Your task to perform on an android device: open a bookmark in the chrome app Image 0: 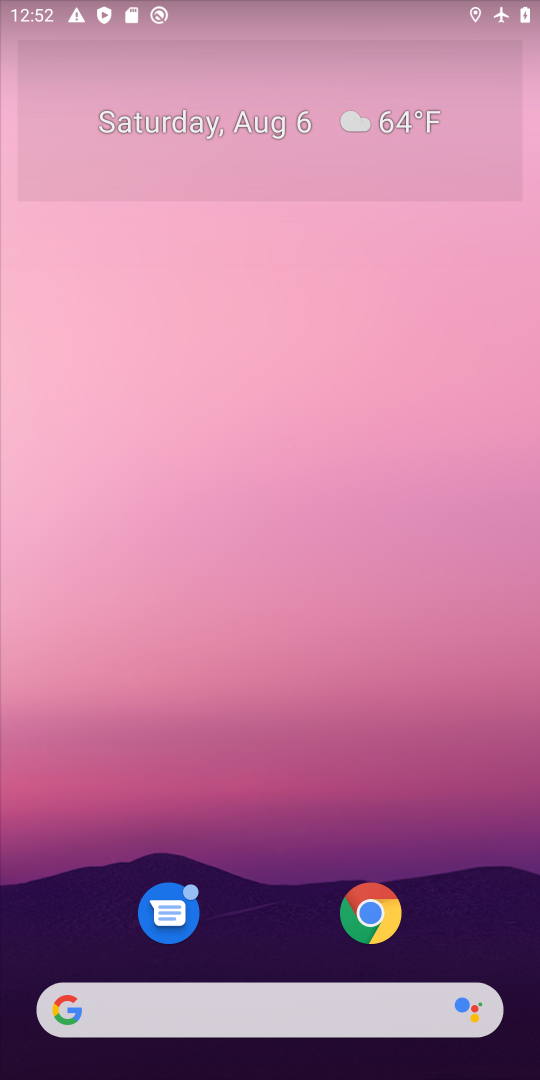
Step 0: press home button
Your task to perform on an android device: open a bookmark in the chrome app Image 1: 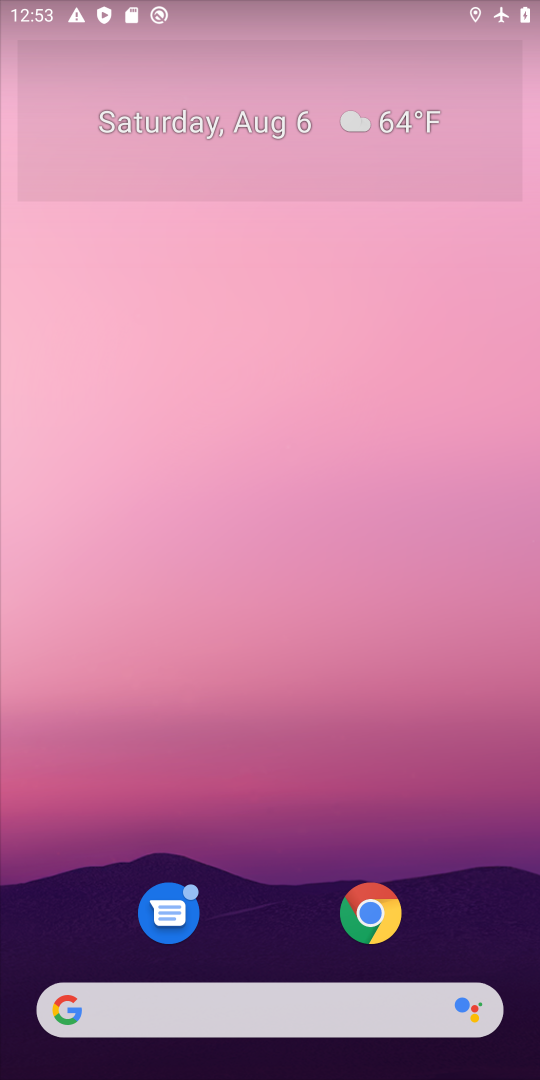
Step 1: drag from (458, 922) to (459, 442)
Your task to perform on an android device: open a bookmark in the chrome app Image 2: 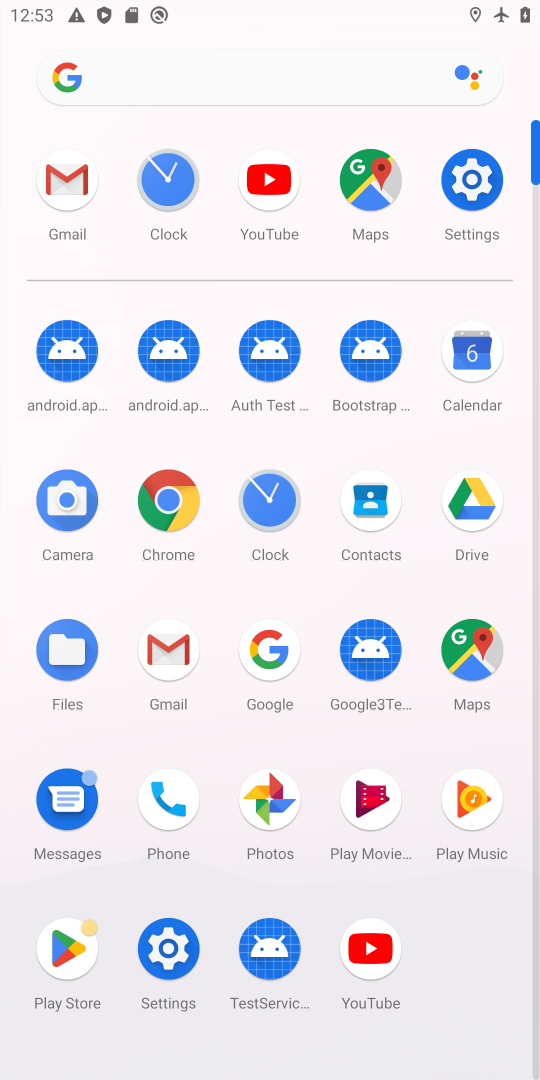
Step 2: click (164, 507)
Your task to perform on an android device: open a bookmark in the chrome app Image 3: 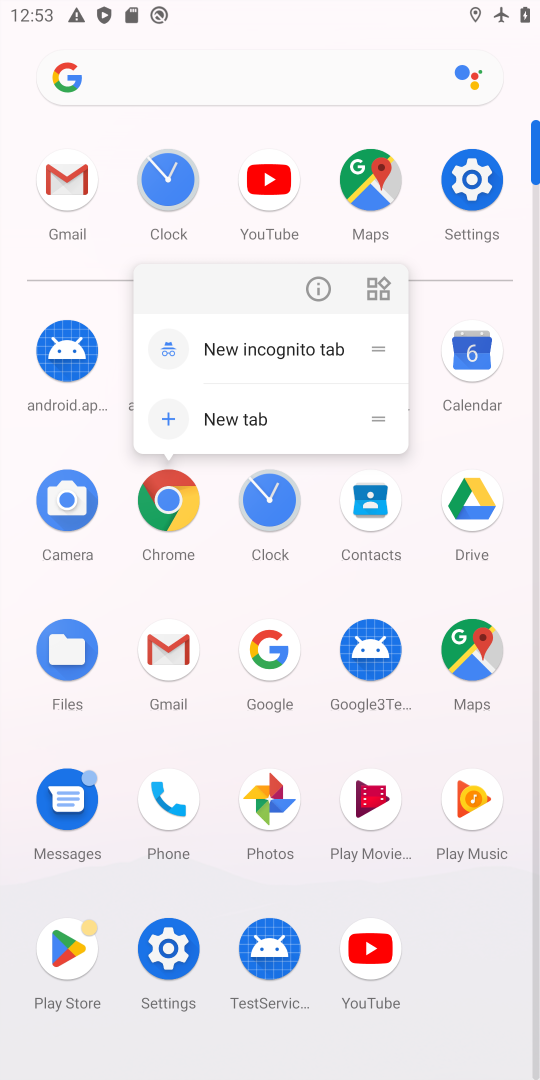
Step 3: click (164, 507)
Your task to perform on an android device: open a bookmark in the chrome app Image 4: 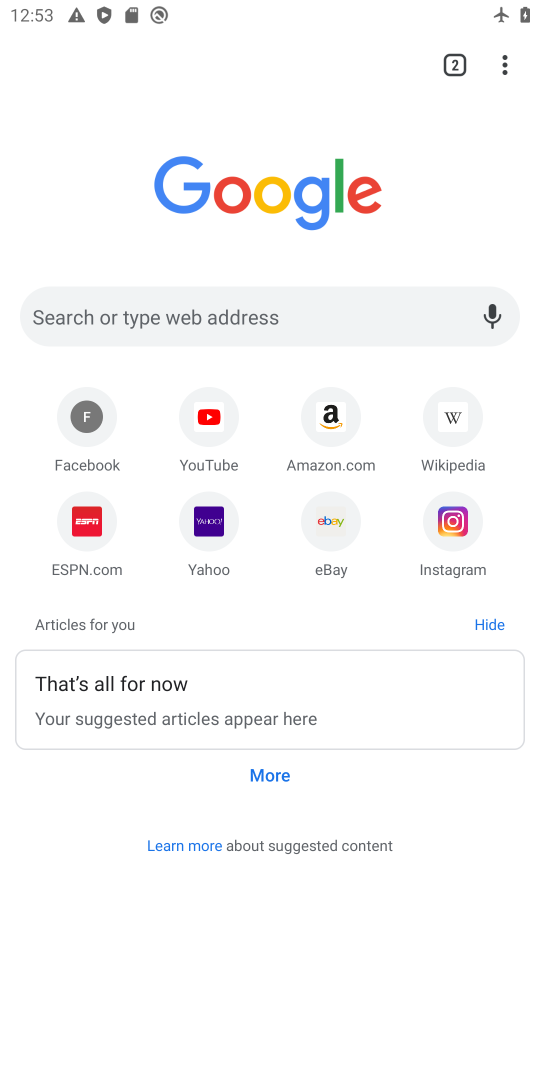
Step 4: click (499, 68)
Your task to perform on an android device: open a bookmark in the chrome app Image 5: 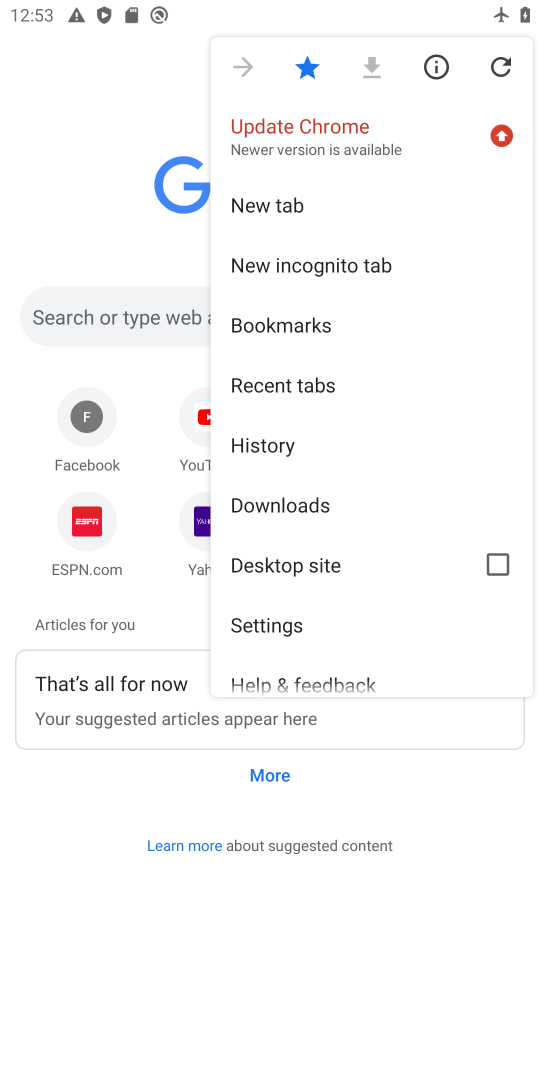
Step 5: click (375, 328)
Your task to perform on an android device: open a bookmark in the chrome app Image 6: 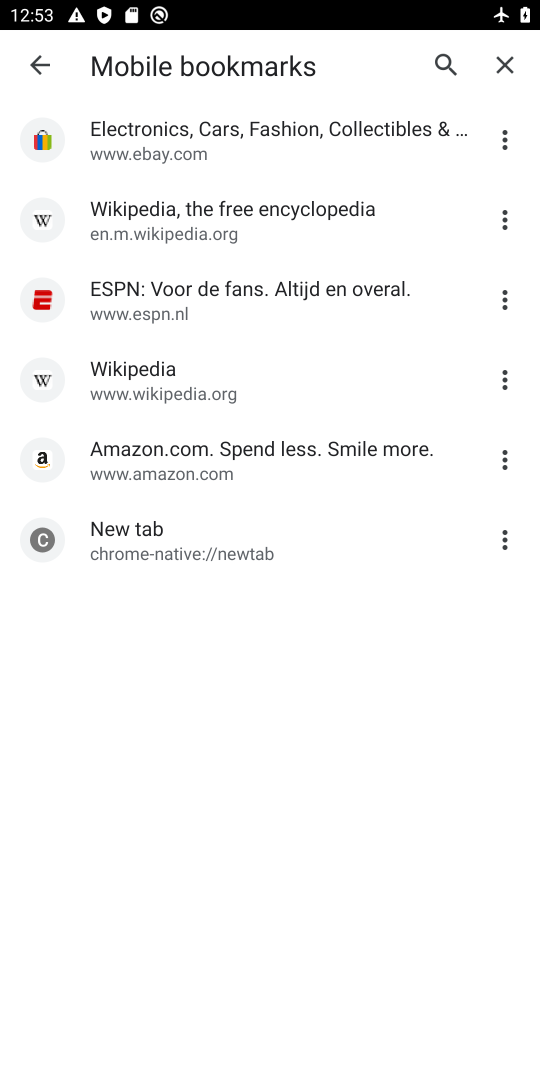
Step 6: click (286, 297)
Your task to perform on an android device: open a bookmark in the chrome app Image 7: 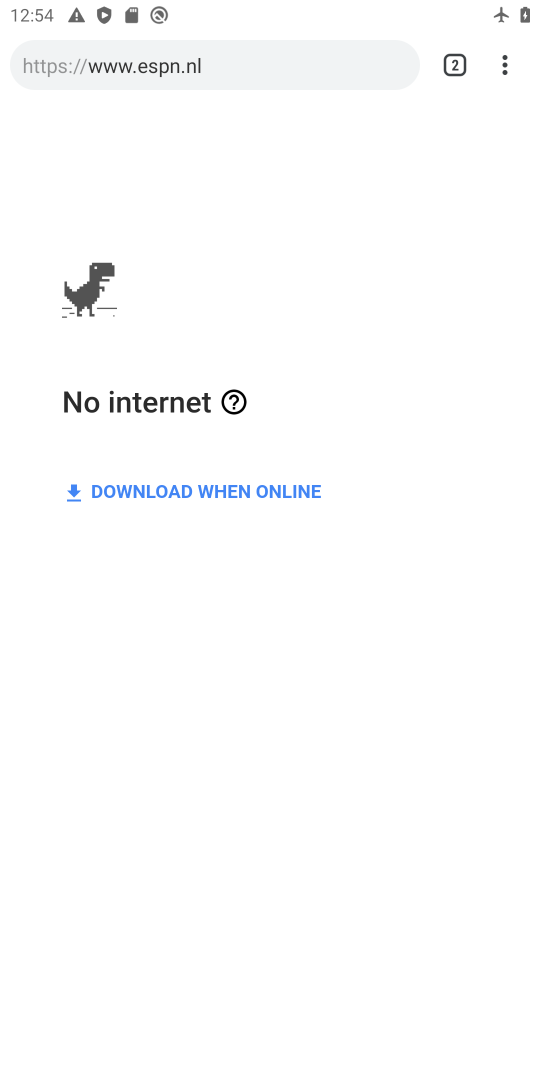
Step 7: task complete